Your task to perform on an android device: open a new tab in the chrome app Image 0: 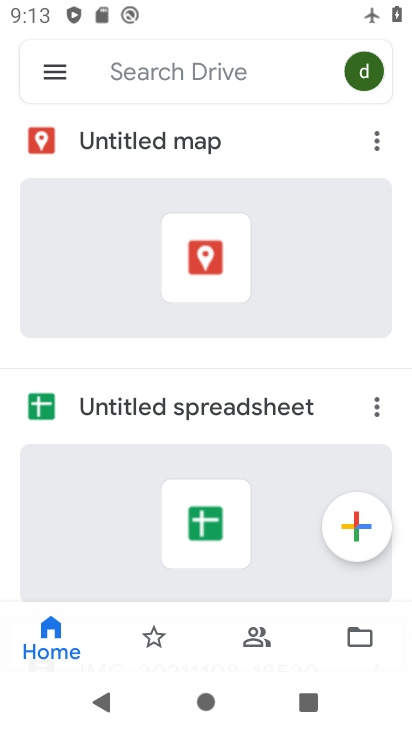
Step 0: press home button
Your task to perform on an android device: open a new tab in the chrome app Image 1: 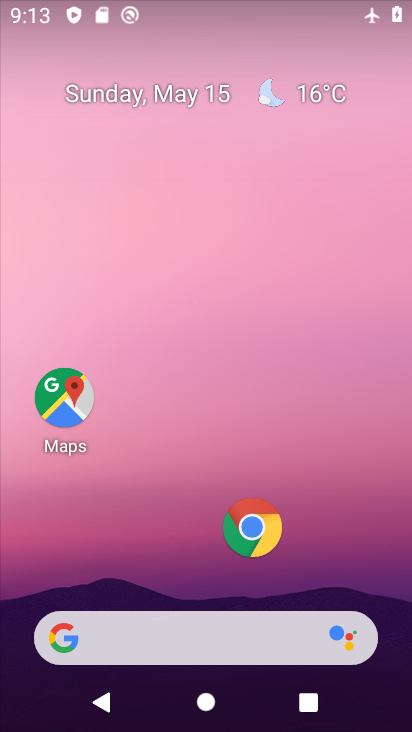
Step 1: click (249, 524)
Your task to perform on an android device: open a new tab in the chrome app Image 2: 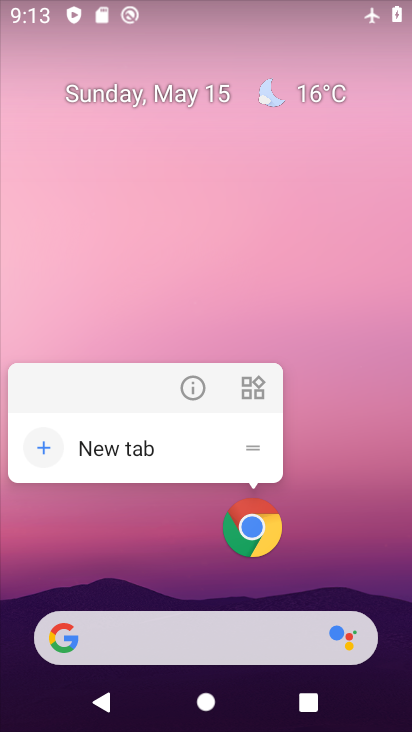
Step 2: click (322, 538)
Your task to perform on an android device: open a new tab in the chrome app Image 3: 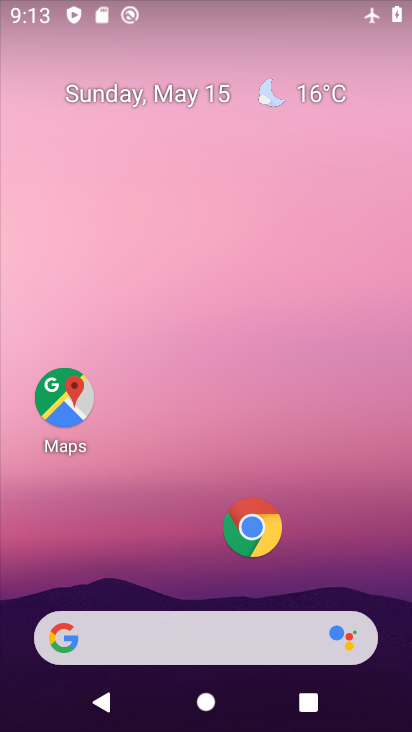
Step 3: click (247, 527)
Your task to perform on an android device: open a new tab in the chrome app Image 4: 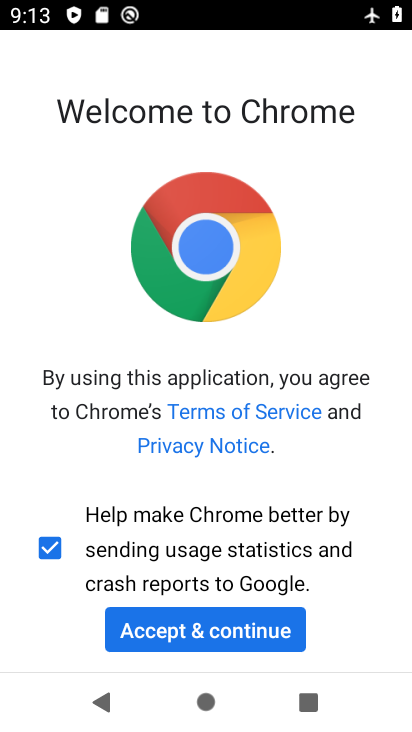
Step 4: click (192, 623)
Your task to perform on an android device: open a new tab in the chrome app Image 5: 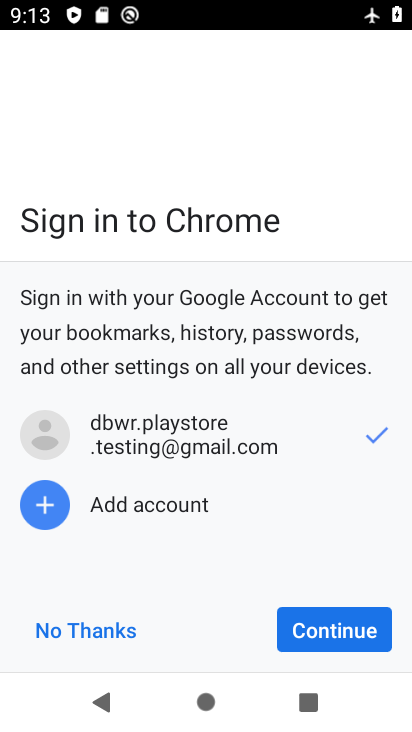
Step 5: click (340, 617)
Your task to perform on an android device: open a new tab in the chrome app Image 6: 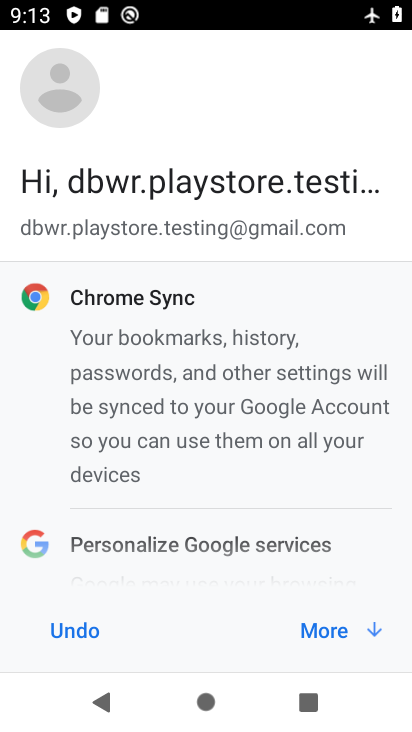
Step 6: click (341, 629)
Your task to perform on an android device: open a new tab in the chrome app Image 7: 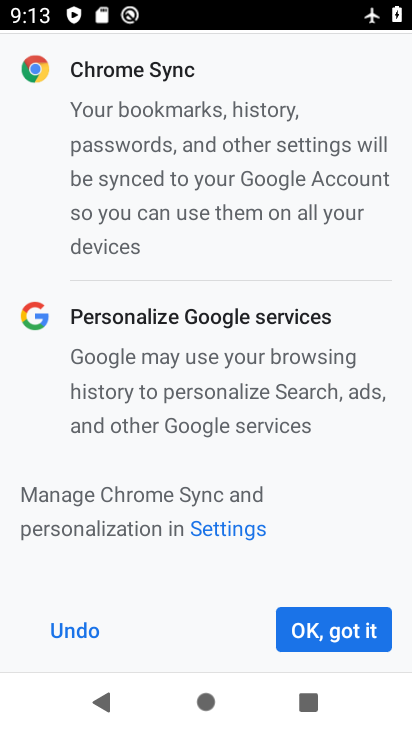
Step 7: click (341, 629)
Your task to perform on an android device: open a new tab in the chrome app Image 8: 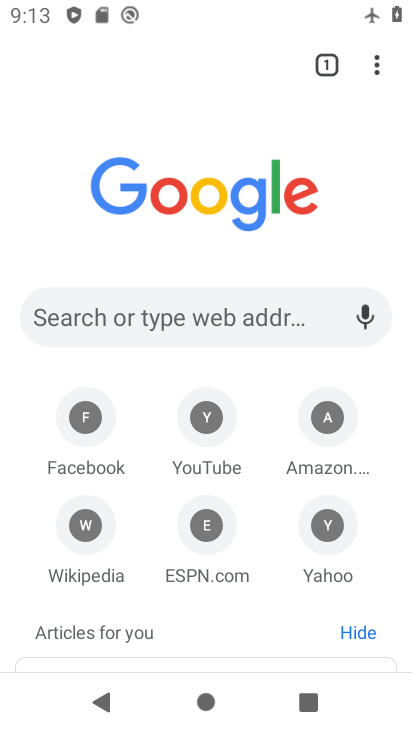
Step 8: click (320, 66)
Your task to perform on an android device: open a new tab in the chrome app Image 9: 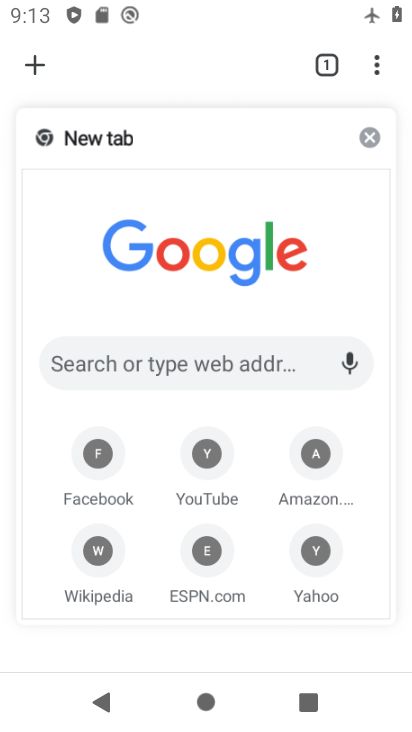
Step 9: click (30, 64)
Your task to perform on an android device: open a new tab in the chrome app Image 10: 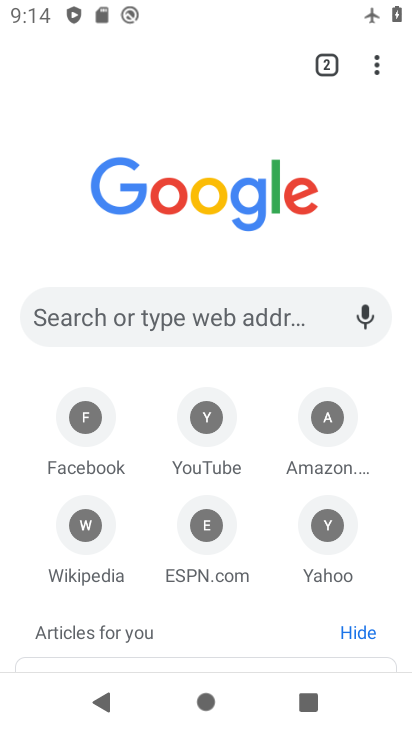
Step 10: task complete